Your task to perform on an android device: turn off data saver in the chrome app Image 0: 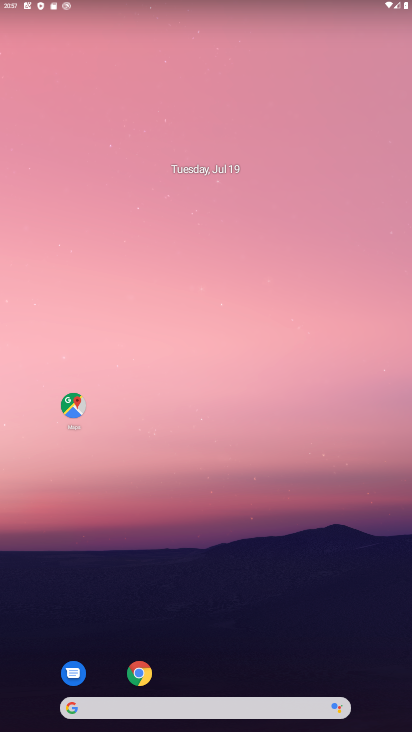
Step 0: click (138, 661)
Your task to perform on an android device: turn off data saver in the chrome app Image 1: 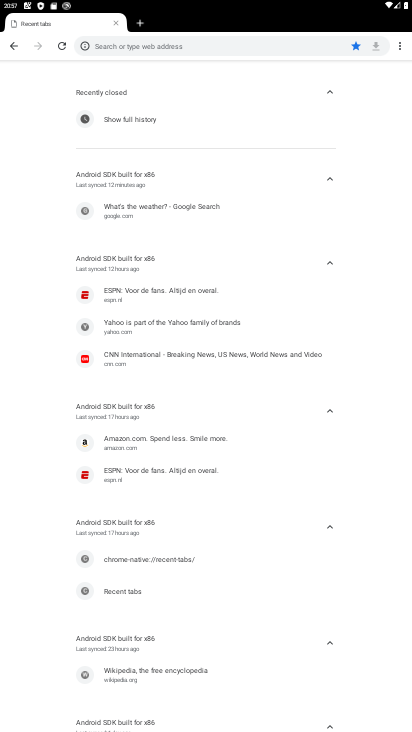
Step 1: click (398, 42)
Your task to perform on an android device: turn off data saver in the chrome app Image 2: 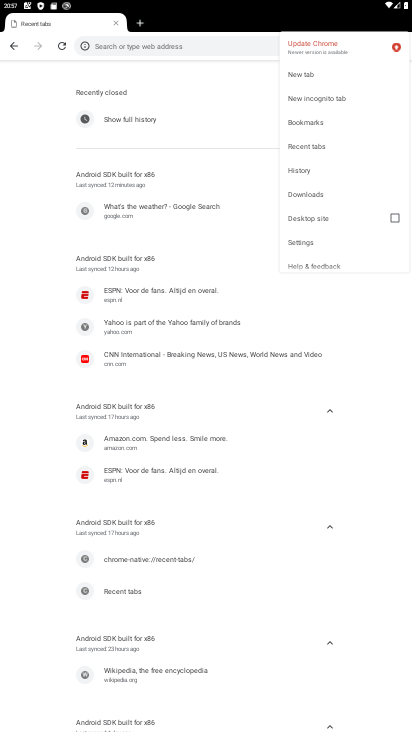
Step 2: click (303, 244)
Your task to perform on an android device: turn off data saver in the chrome app Image 3: 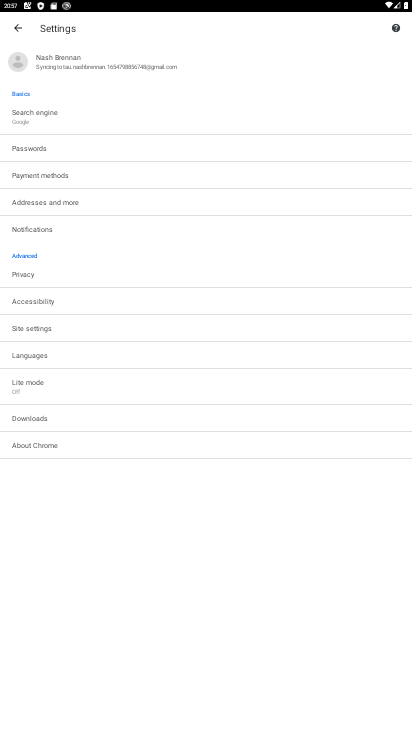
Step 3: click (41, 391)
Your task to perform on an android device: turn off data saver in the chrome app Image 4: 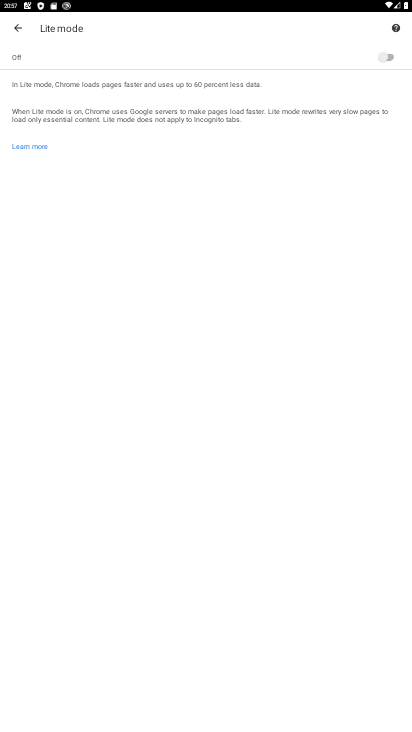
Step 4: task complete